Your task to perform on an android device: Go to Amazon Image 0: 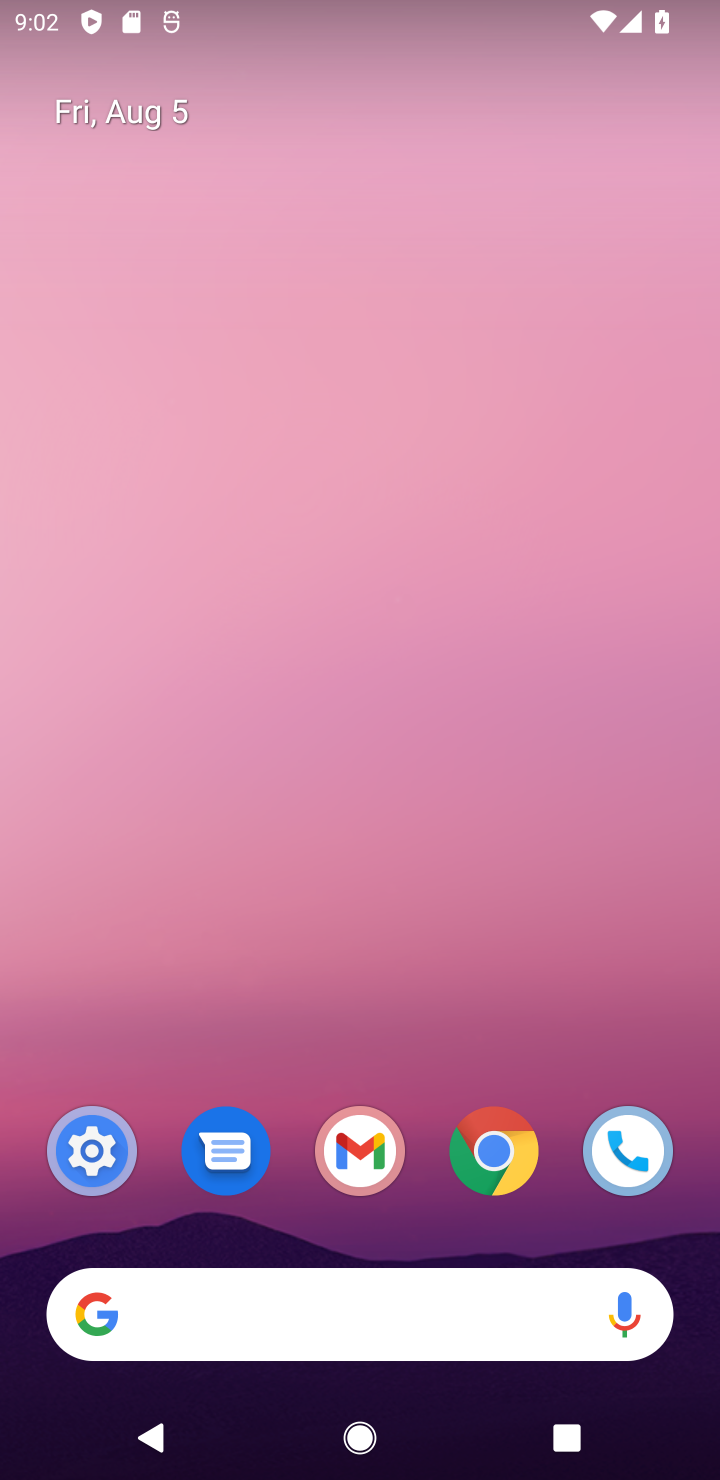
Step 0: click (488, 1147)
Your task to perform on an android device: Go to Amazon Image 1: 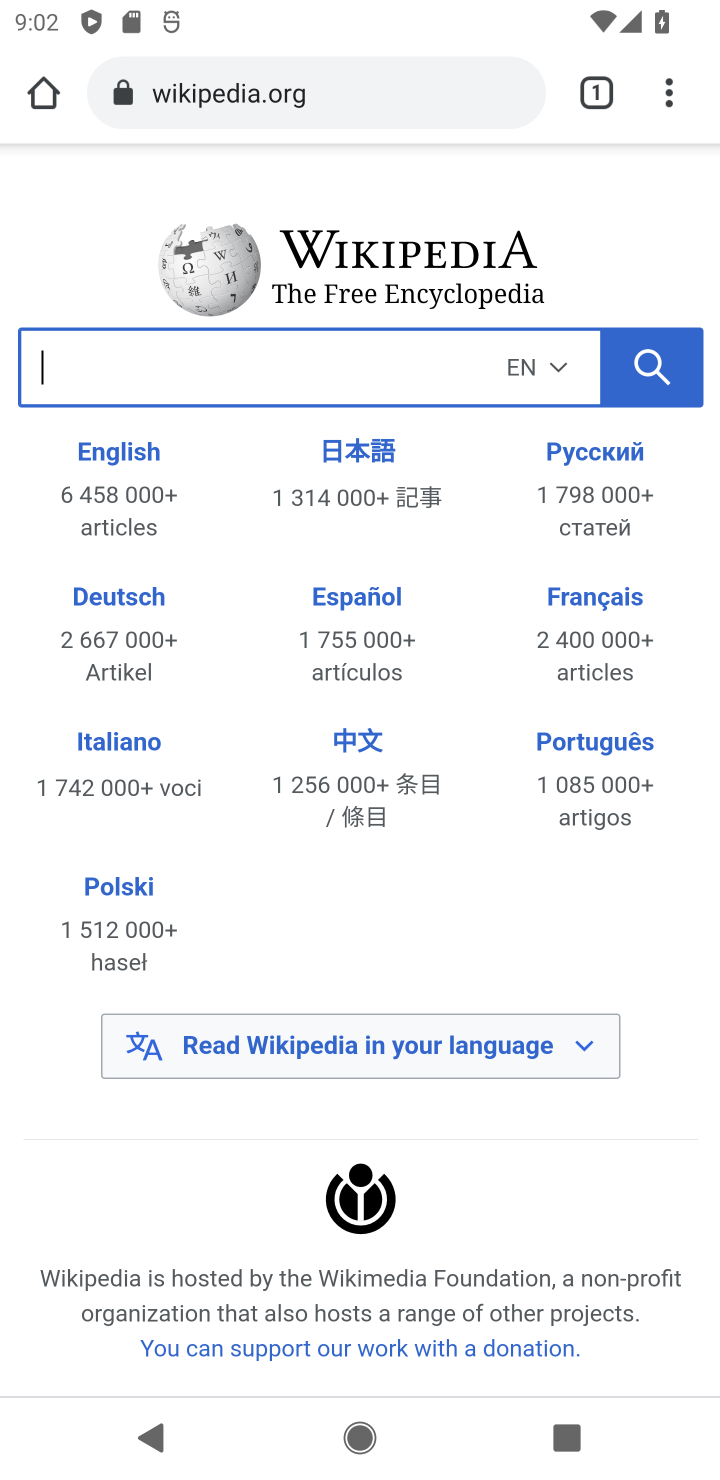
Step 1: click (249, 96)
Your task to perform on an android device: Go to Amazon Image 2: 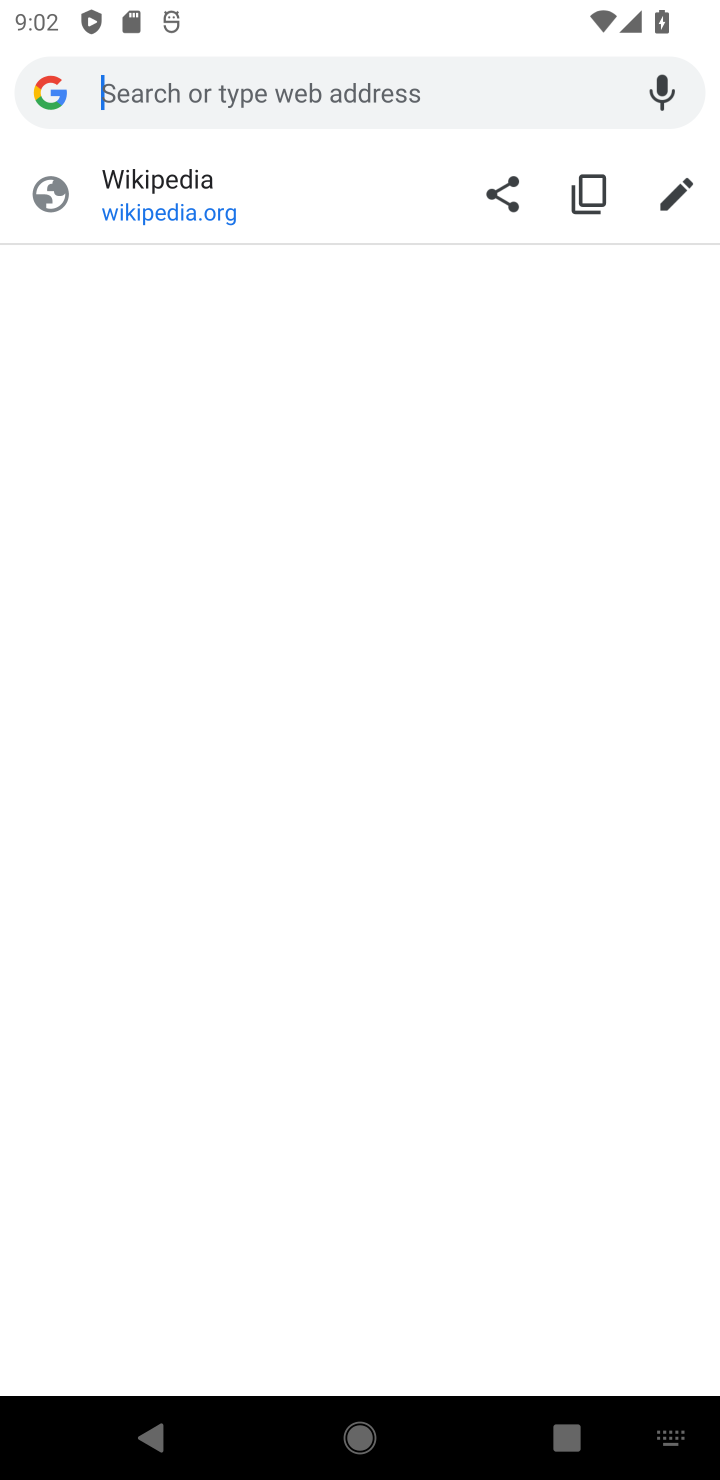
Step 2: type "www.amazon.com"
Your task to perform on an android device: Go to Amazon Image 3: 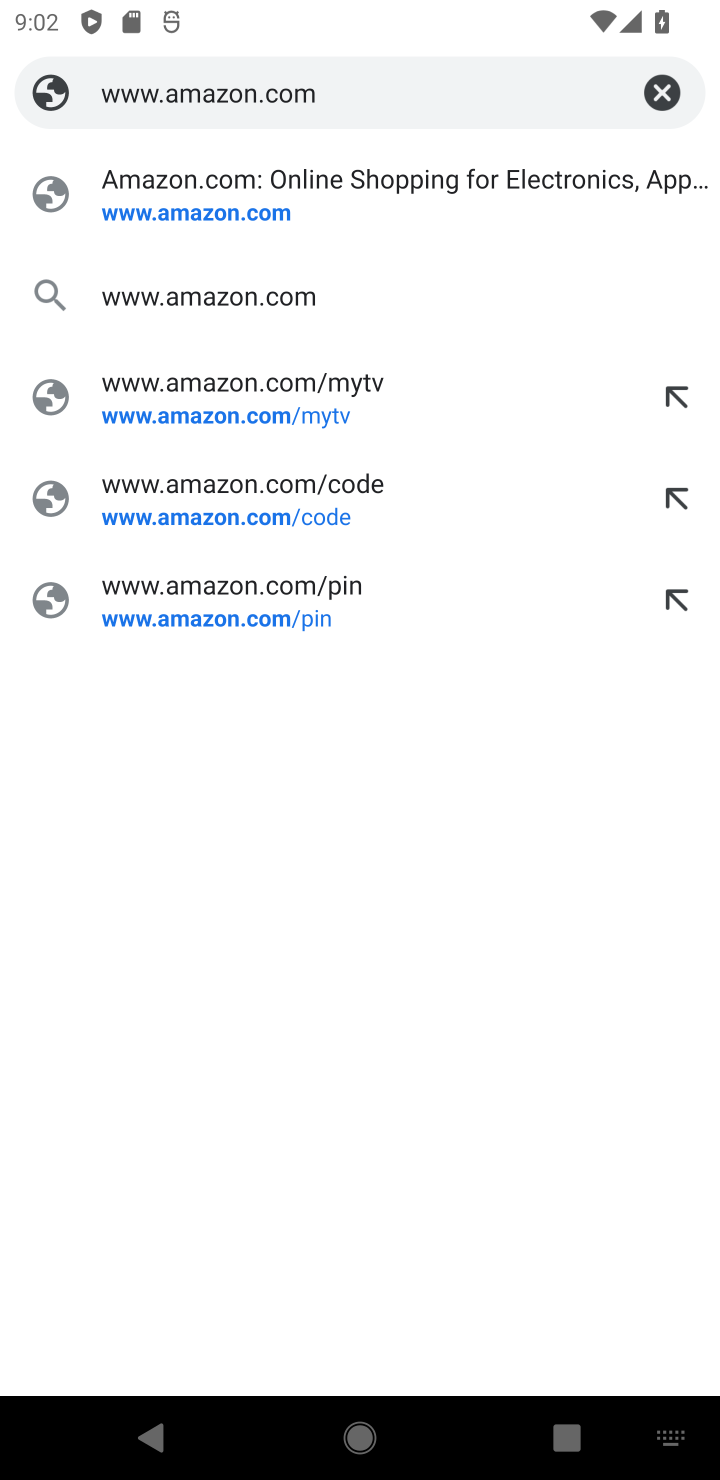
Step 3: click (207, 203)
Your task to perform on an android device: Go to Amazon Image 4: 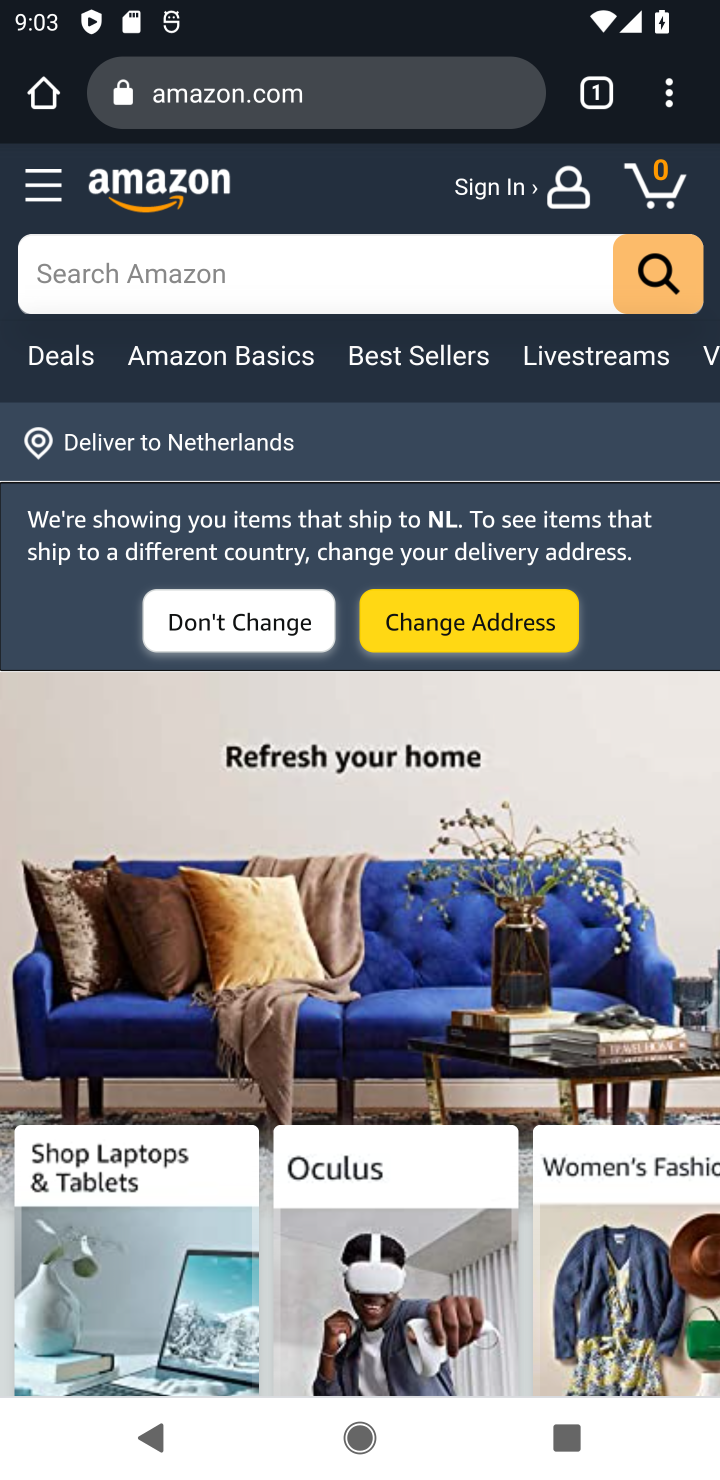
Step 4: task complete